Your task to perform on an android device: turn off priority inbox in the gmail app Image 0: 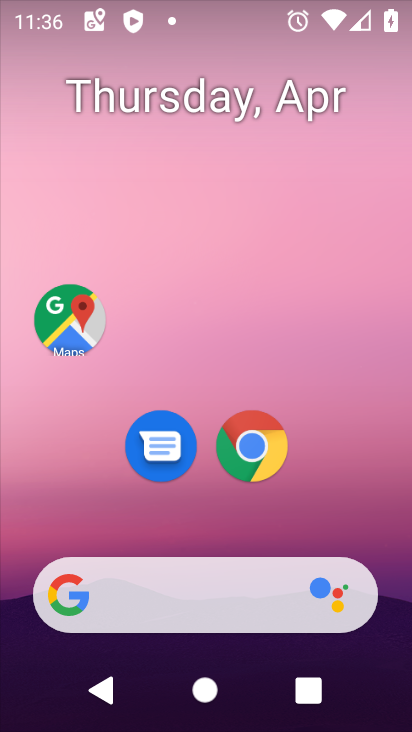
Step 0: drag from (377, 356) to (307, 169)
Your task to perform on an android device: turn off priority inbox in the gmail app Image 1: 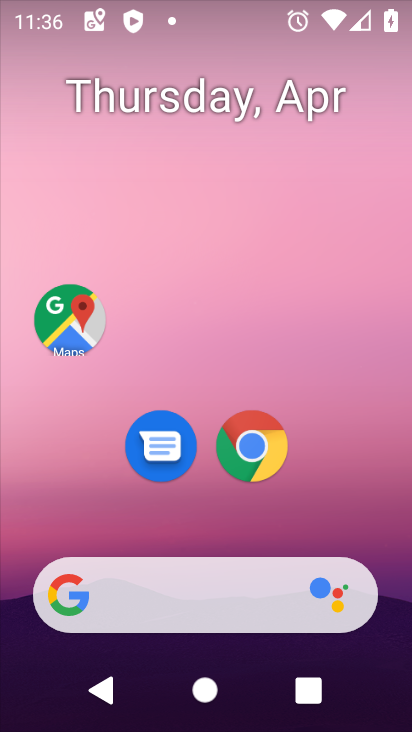
Step 1: drag from (341, 499) to (277, 180)
Your task to perform on an android device: turn off priority inbox in the gmail app Image 2: 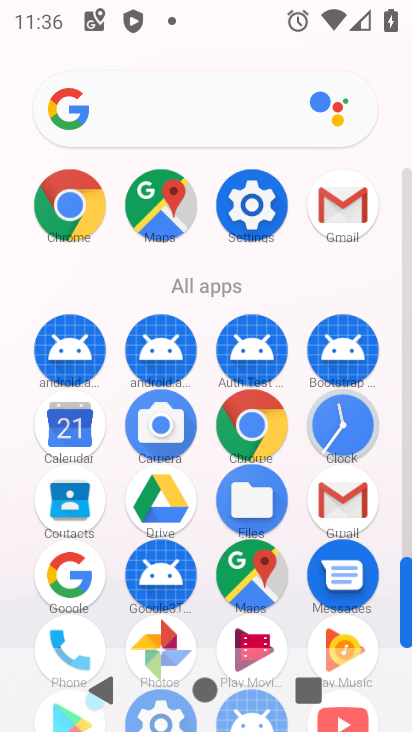
Step 2: click (330, 221)
Your task to perform on an android device: turn off priority inbox in the gmail app Image 3: 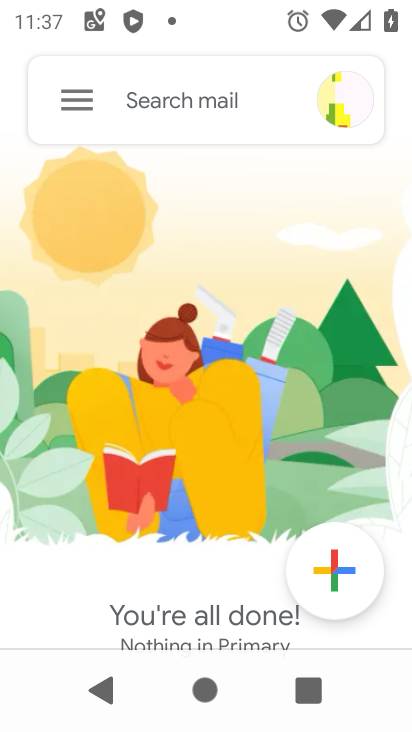
Step 3: click (81, 94)
Your task to perform on an android device: turn off priority inbox in the gmail app Image 4: 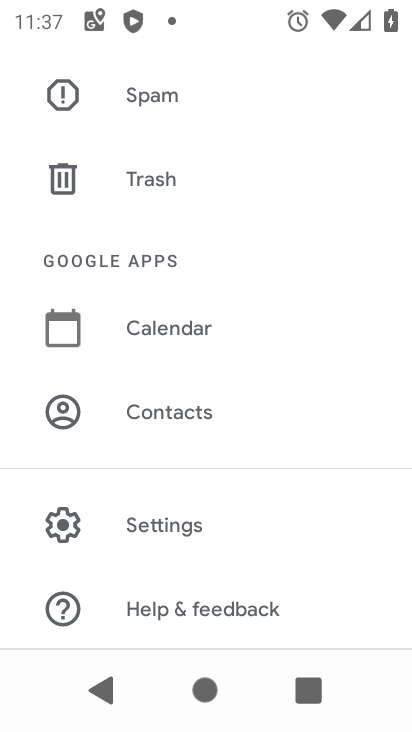
Step 4: click (214, 536)
Your task to perform on an android device: turn off priority inbox in the gmail app Image 5: 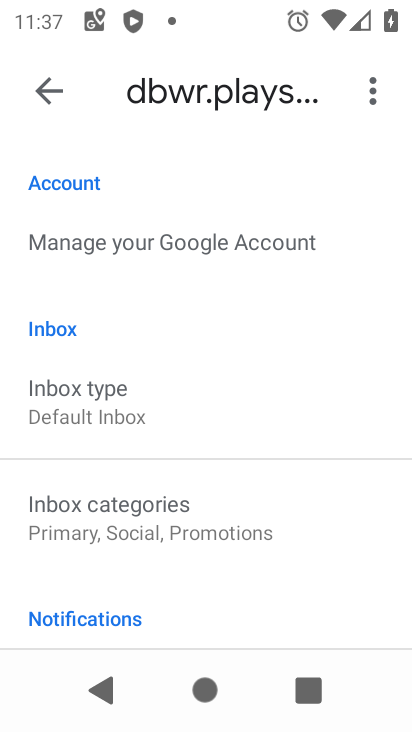
Step 5: click (223, 420)
Your task to perform on an android device: turn off priority inbox in the gmail app Image 6: 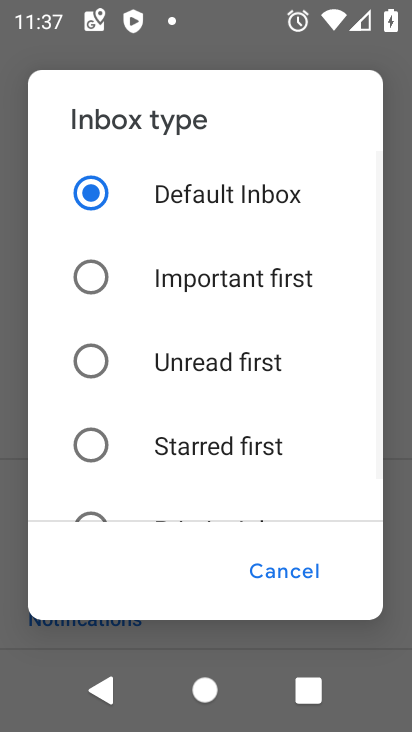
Step 6: task complete